Your task to perform on an android device: Open Chrome and go to settings Image 0: 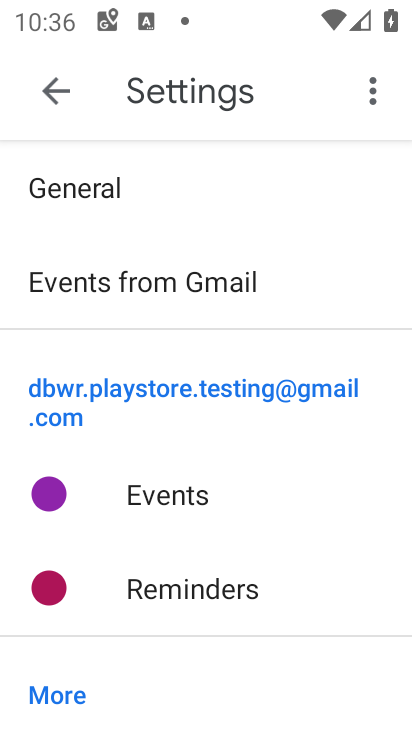
Step 0: press home button
Your task to perform on an android device: Open Chrome and go to settings Image 1: 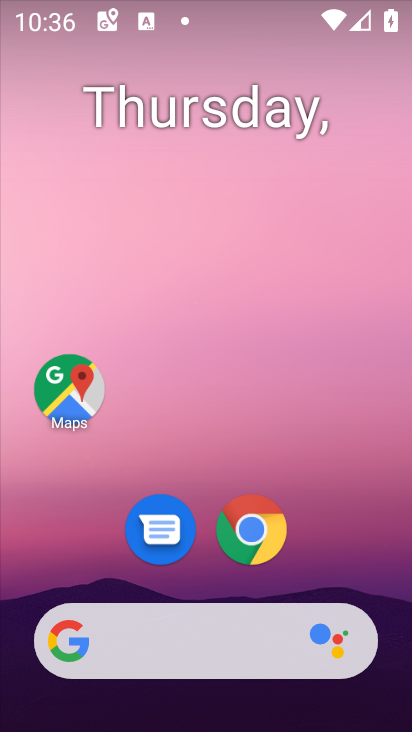
Step 1: drag from (316, 628) to (297, 141)
Your task to perform on an android device: Open Chrome and go to settings Image 2: 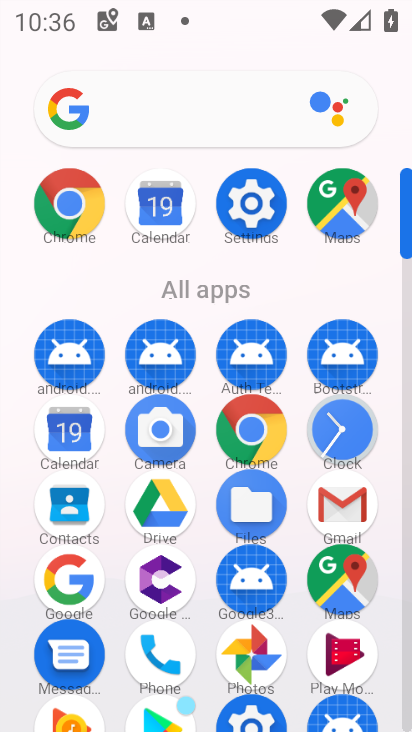
Step 2: click (80, 230)
Your task to perform on an android device: Open Chrome and go to settings Image 3: 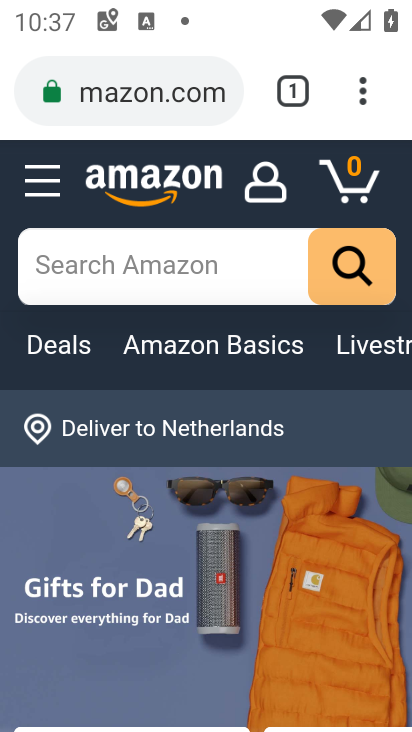
Step 3: click (351, 105)
Your task to perform on an android device: Open Chrome and go to settings Image 4: 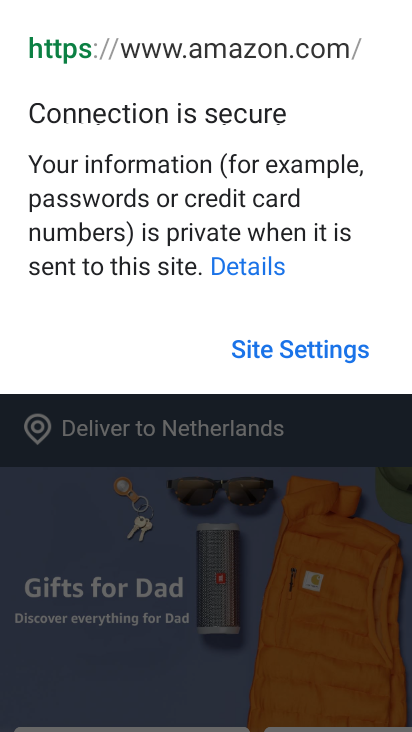
Step 4: click (323, 577)
Your task to perform on an android device: Open Chrome and go to settings Image 5: 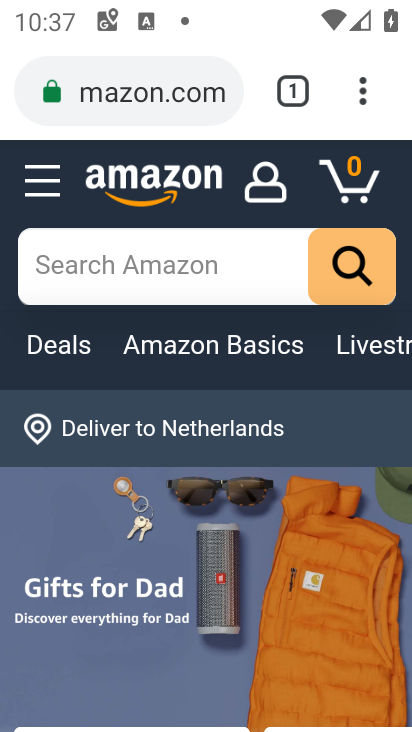
Step 5: click (367, 107)
Your task to perform on an android device: Open Chrome and go to settings Image 6: 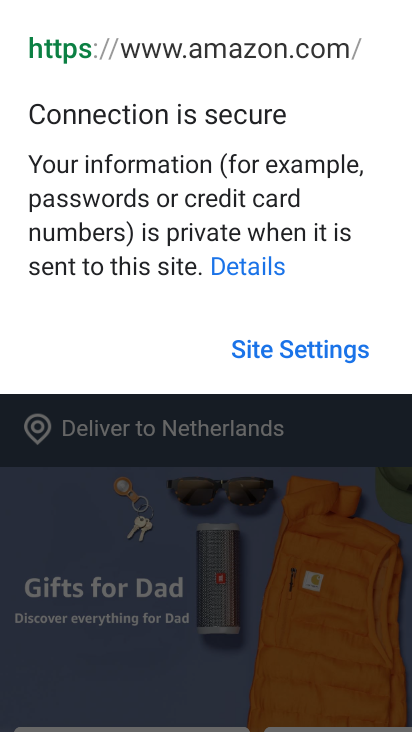
Step 6: click (253, 617)
Your task to perform on an android device: Open Chrome and go to settings Image 7: 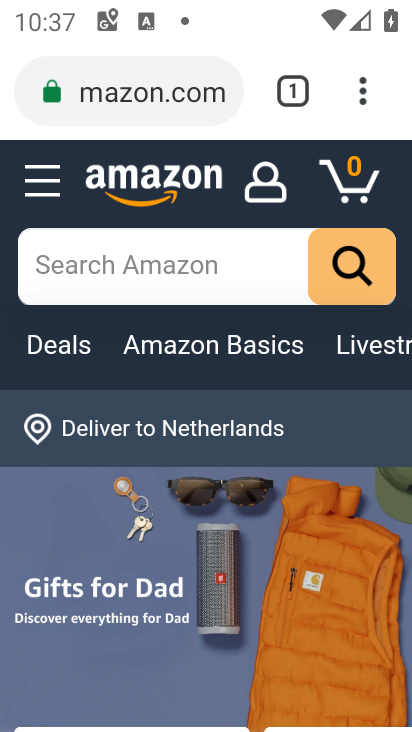
Step 7: click (343, 86)
Your task to perform on an android device: Open Chrome and go to settings Image 8: 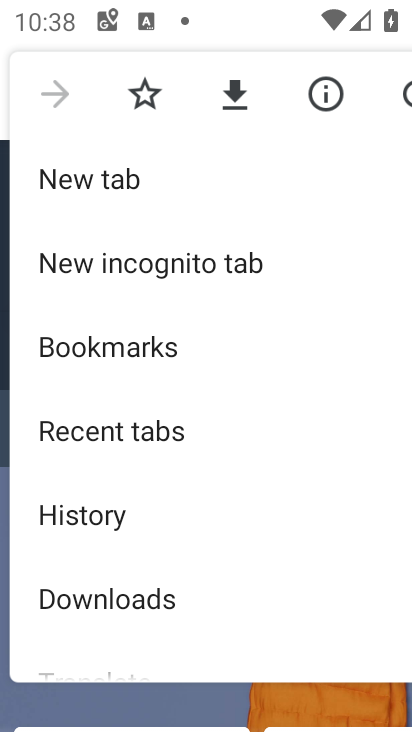
Step 8: drag from (199, 535) to (371, 11)
Your task to perform on an android device: Open Chrome and go to settings Image 9: 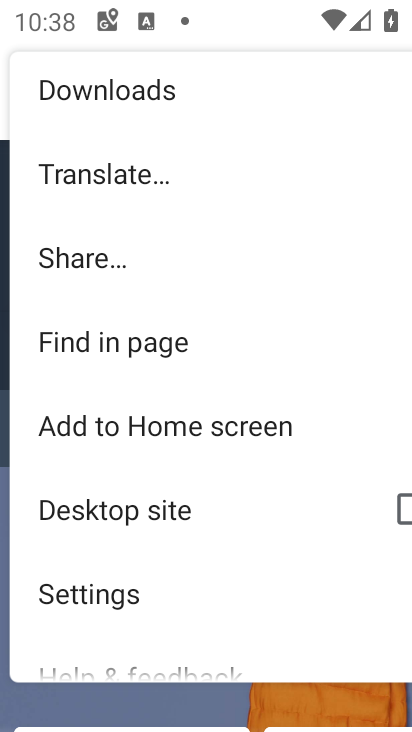
Step 9: click (139, 614)
Your task to perform on an android device: Open Chrome and go to settings Image 10: 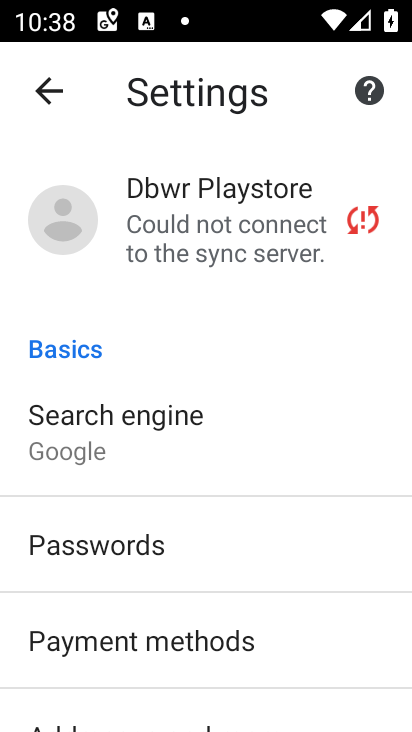
Step 10: task complete